Your task to perform on an android device: What is the capital of Brazil? Image 0: 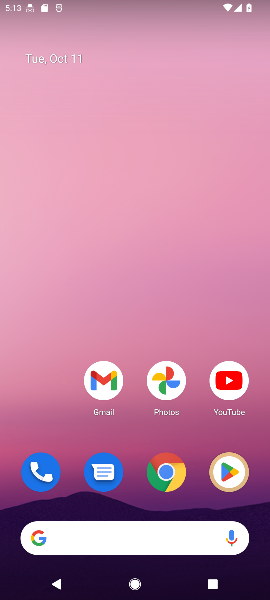
Step 0: click (163, 482)
Your task to perform on an android device: What is the capital of Brazil? Image 1: 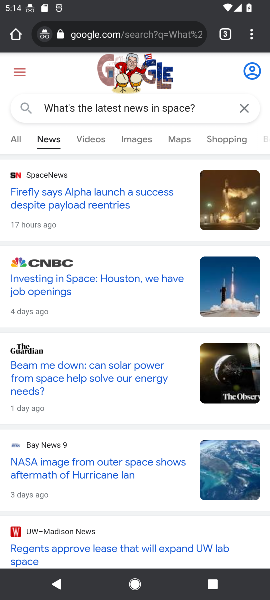
Step 1: click (93, 38)
Your task to perform on an android device: What is the capital of Brazil? Image 2: 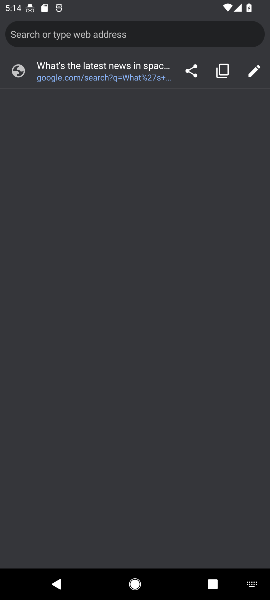
Step 2: type "What is the capital of Brazil?"
Your task to perform on an android device: What is the capital of Brazil? Image 3: 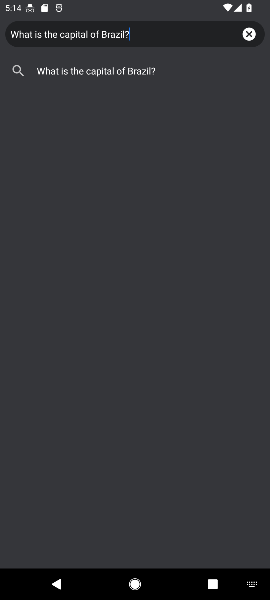
Step 3: click (139, 68)
Your task to perform on an android device: What is the capital of Brazil? Image 4: 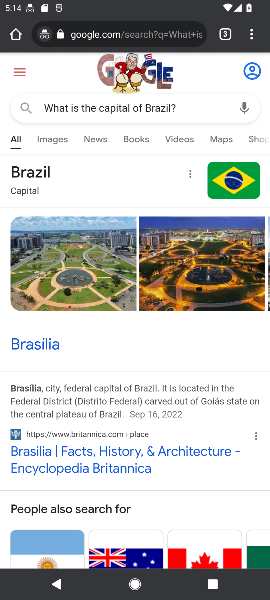
Step 4: task complete